Your task to perform on an android device: check storage Image 0: 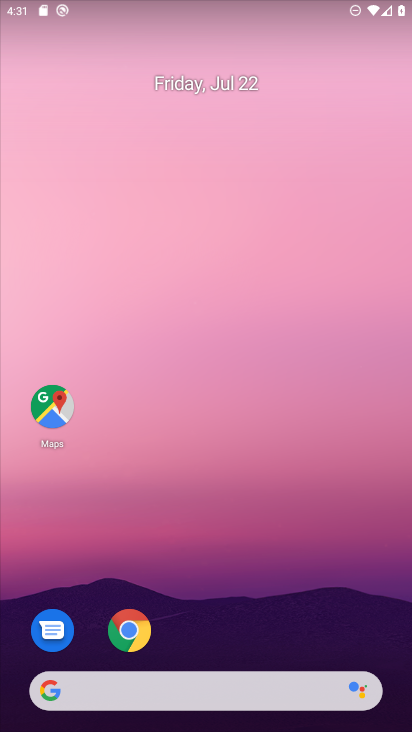
Step 0: drag from (211, 349) to (220, 45)
Your task to perform on an android device: check storage Image 1: 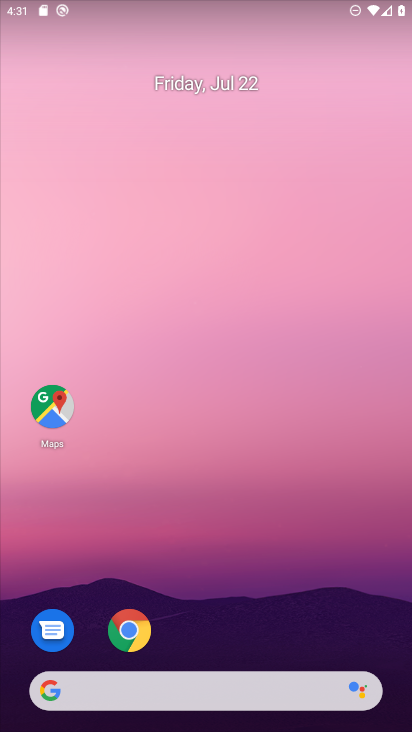
Step 1: drag from (211, 623) to (166, 6)
Your task to perform on an android device: check storage Image 2: 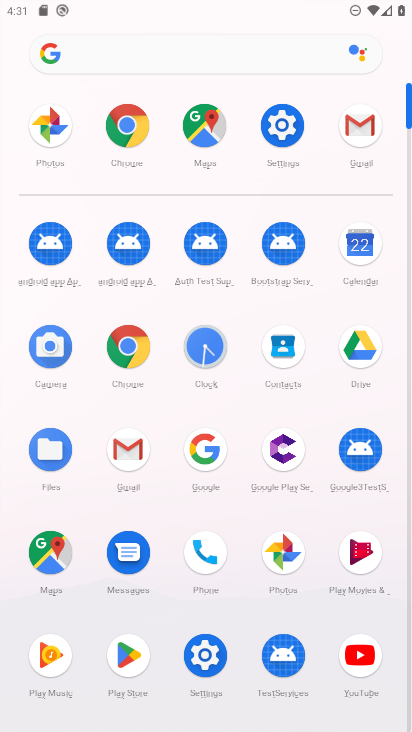
Step 2: click (211, 658)
Your task to perform on an android device: check storage Image 3: 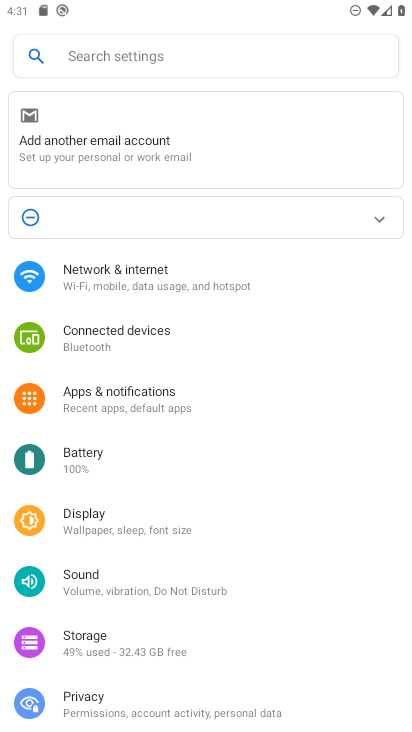
Step 3: click (99, 656)
Your task to perform on an android device: check storage Image 4: 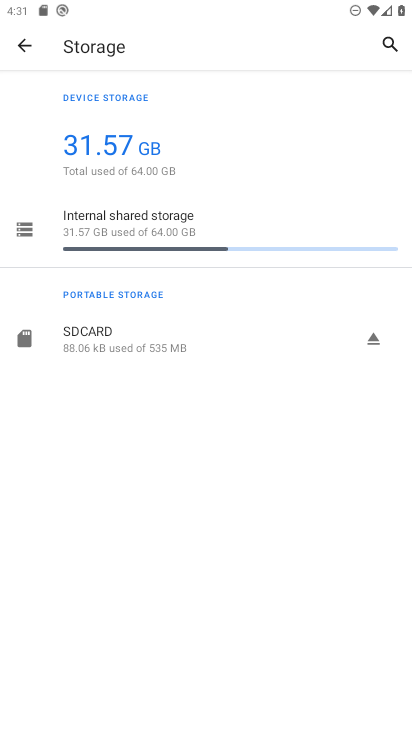
Step 4: click (163, 235)
Your task to perform on an android device: check storage Image 5: 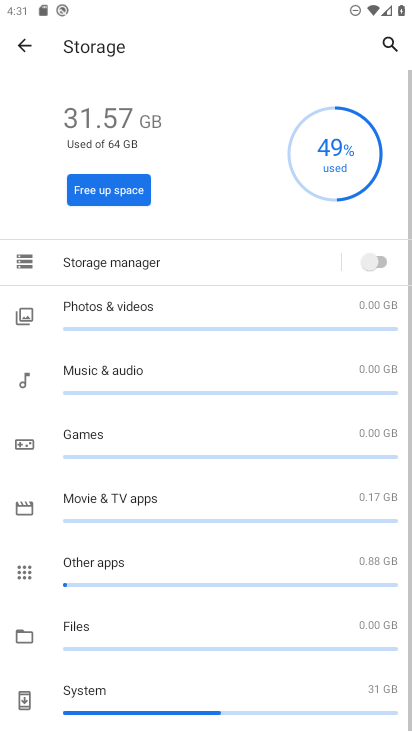
Step 5: task complete